Your task to perform on an android device: check data usage Image 0: 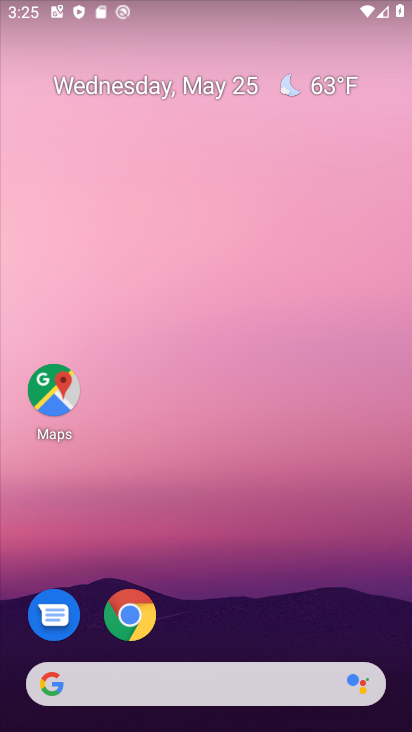
Step 0: click (208, 190)
Your task to perform on an android device: check data usage Image 1: 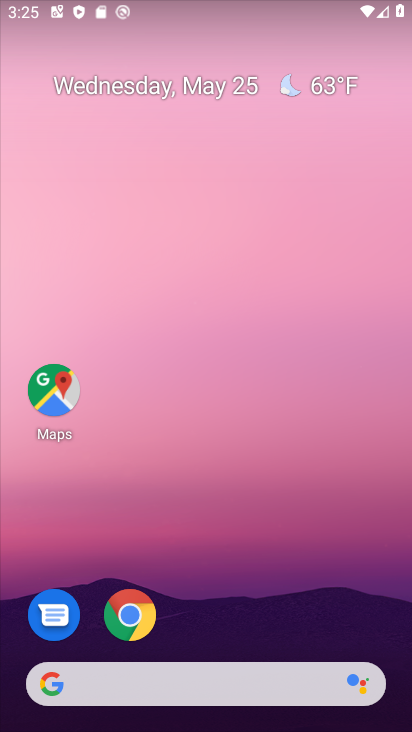
Step 1: drag from (253, 687) to (125, 121)
Your task to perform on an android device: check data usage Image 2: 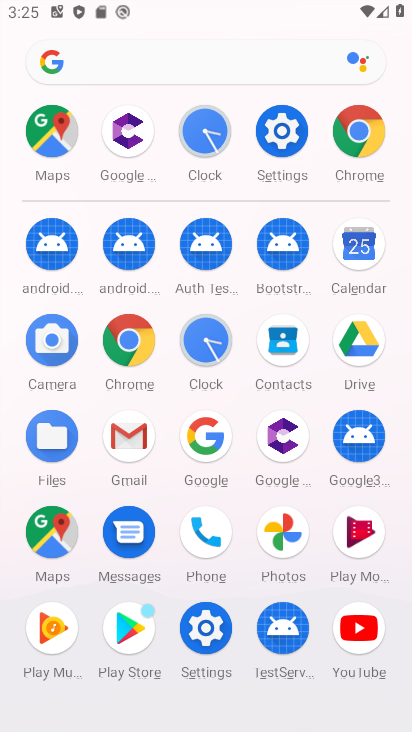
Step 2: click (282, 128)
Your task to perform on an android device: check data usage Image 3: 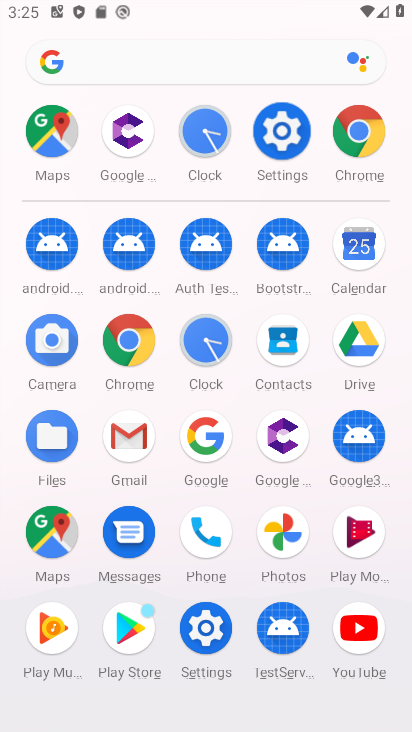
Step 3: click (282, 128)
Your task to perform on an android device: check data usage Image 4: 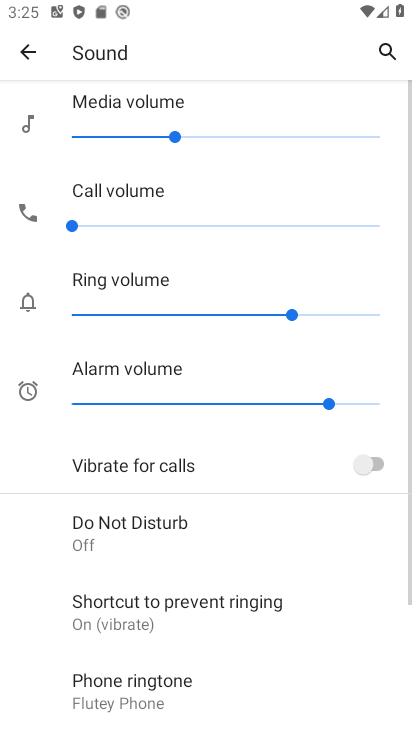
Step 4: click (23, 53)
Your task to perform on an android device: check data usage Image 5: 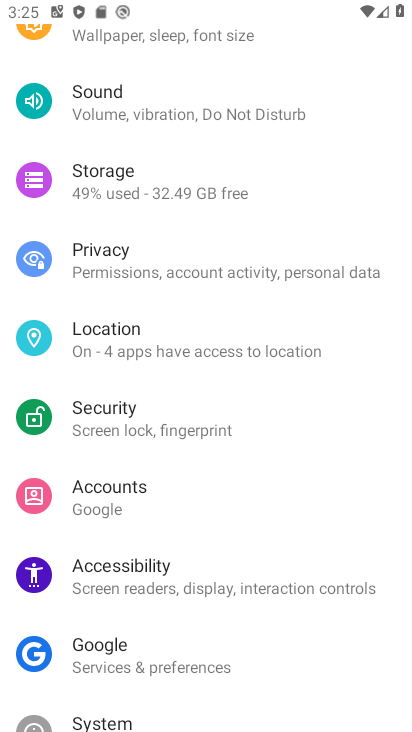
Step 5: drag from (106, 155) to (110, 421)
Your task to perform on an android device: check data usage Image 6: 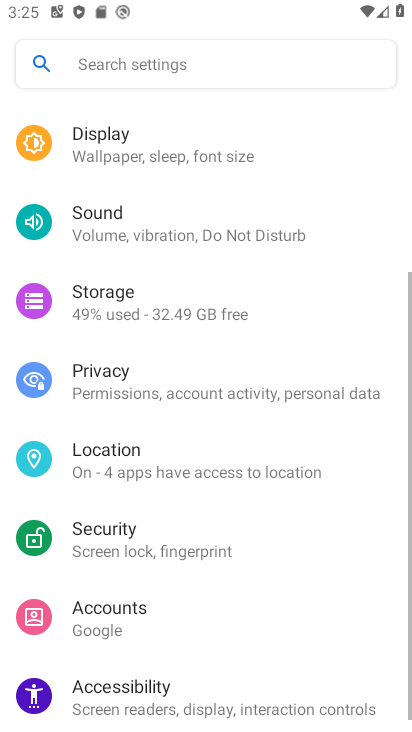
Step 6: drag from (98, 202) to (98, 608)
Your task to perform on an android device: check data usage Image 7: 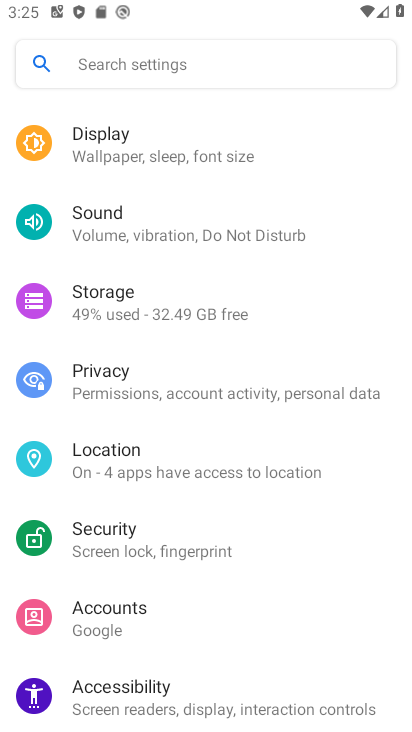
Step 7: click (195, 463)
Your task to perform on an android device: check data usage Image 8: 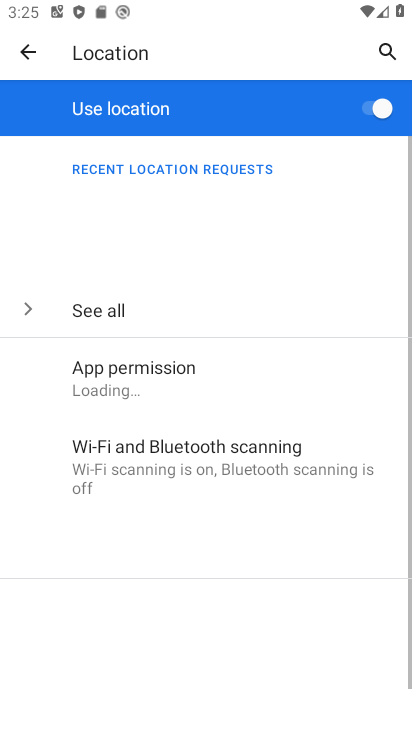
Step 8: drag from (169, 189) to (220, 552)
Your task to perform on an android device: check data usage Image 9: 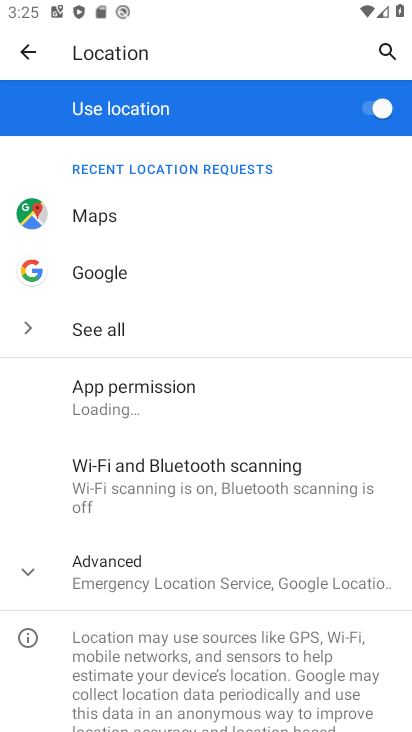
Step 9: click (23, 48)
Your task to perform on an android device: check data usage Image 10: 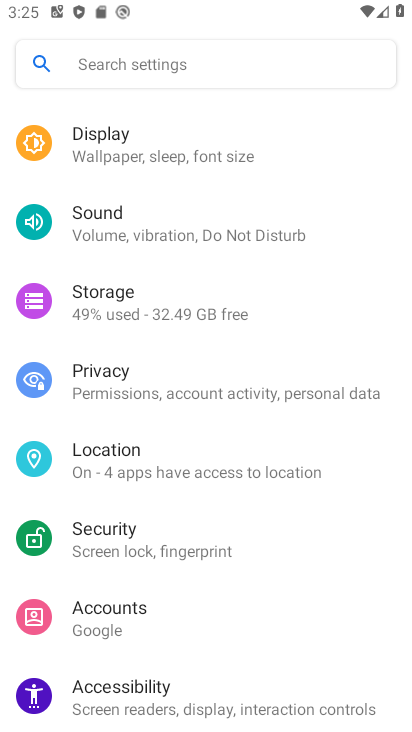
Step 10: drag from (123, 161) to (187, 546)
Your task to perform on an android device: check data usage Image 11: 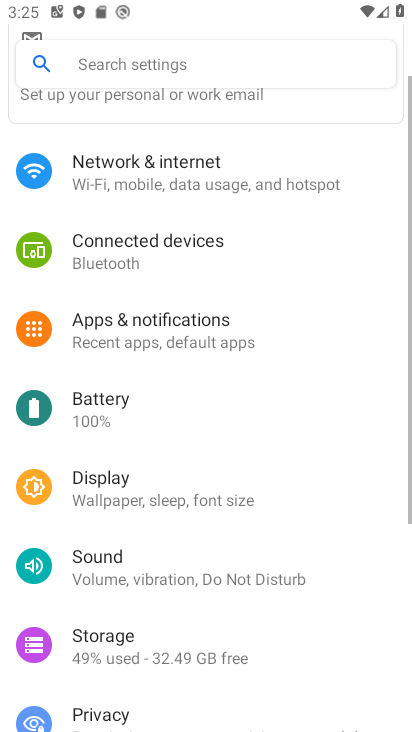
Step 11: drag from (158, 226) to (212, 533)
Your task to perform on an android device: check data usage Image 12: 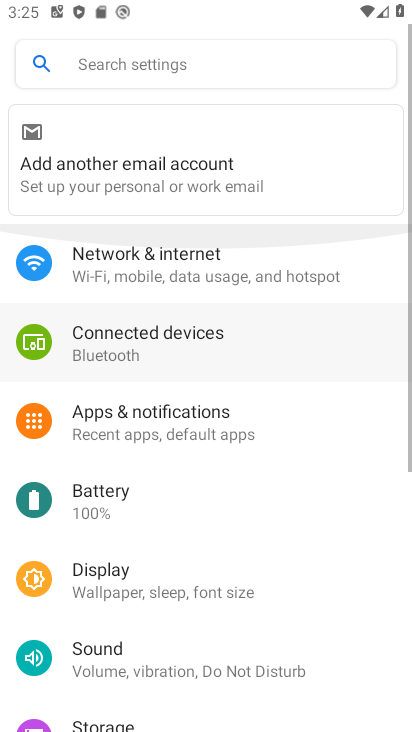
Step 12: drag from (229, 263) to (228, 517)
Your task to perform on an android device: check data usage Image 13: 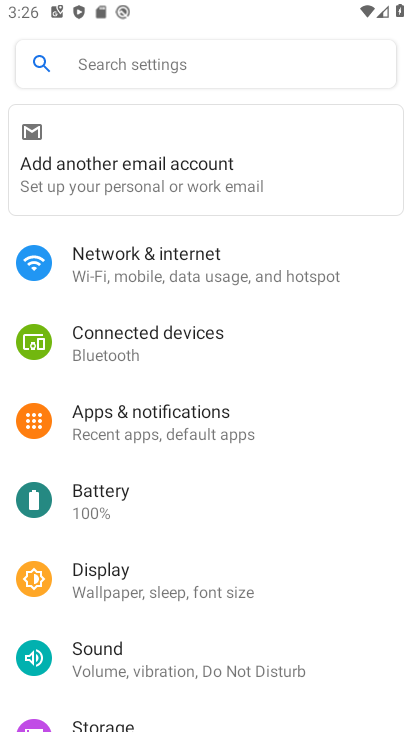
Step 13: click (173, 256)
Your task to perform on an android device: check data usage Image 14: 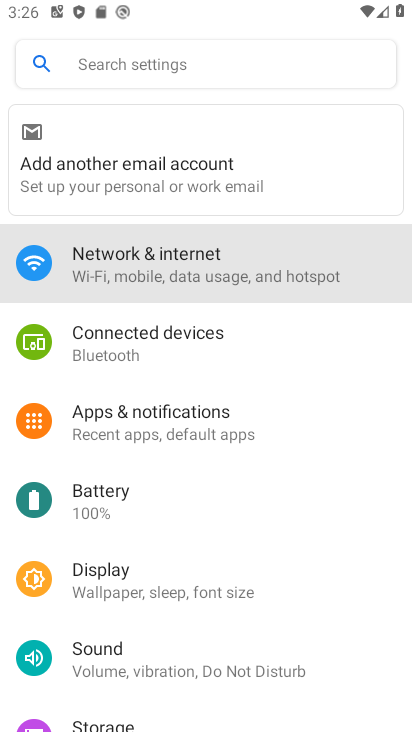
Step 14: click (176, 254)
Your task to perform on an android device: check data usage Image 15: 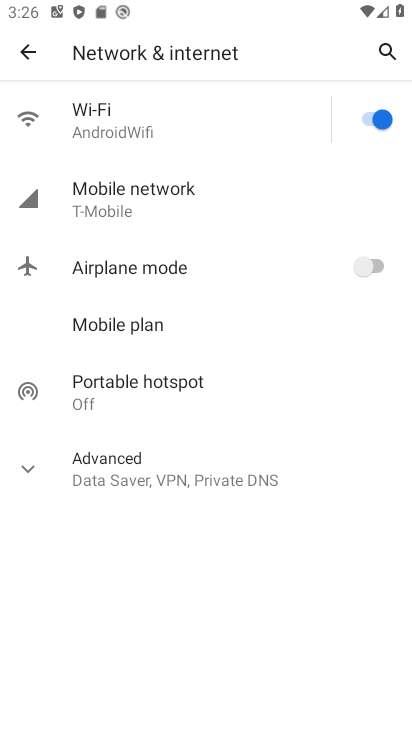
Step 15: task complete